Your task to perform on an android device: remove spam from my inbox in the gmail app Image 0: 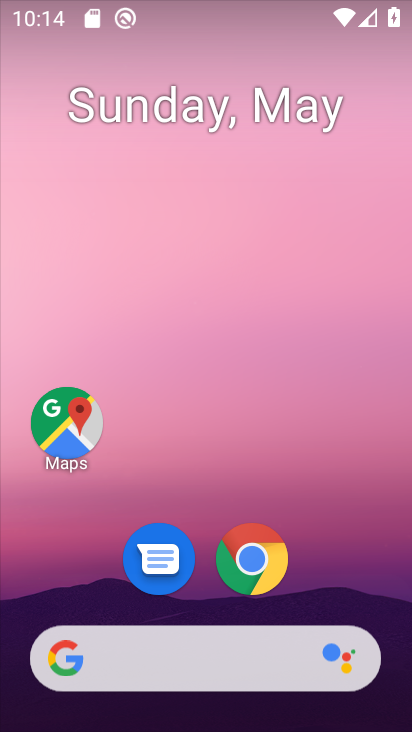
Step 0: drag from (211, 600) to (216, 160)
Your task to perform on an android device: remove spam from my inbox in the gmail app Image 1: 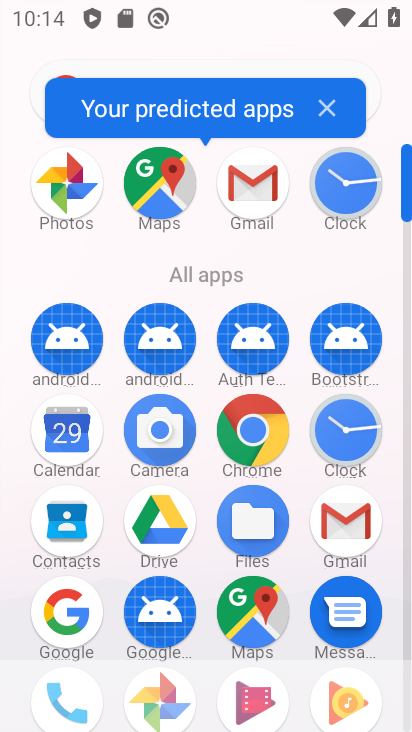
Step 1: click (232, 175)
Your task to perform on an android device: remove spam from my inbox in the gmail app Image 2: 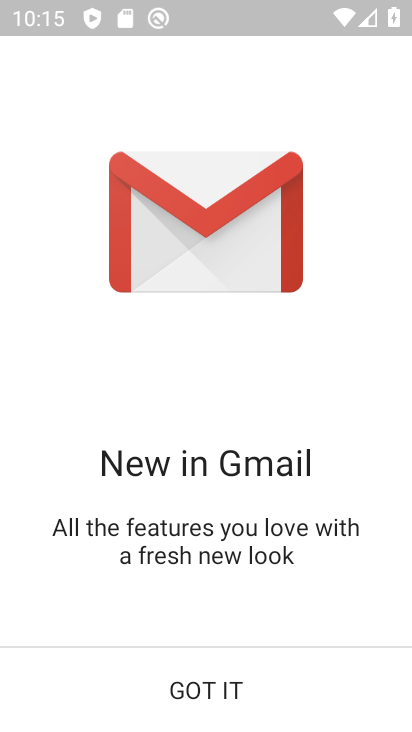
Step 2: click (246, 686)
Your task to perform on an android device: remove spam from my inbox in the gmail app Image 3: 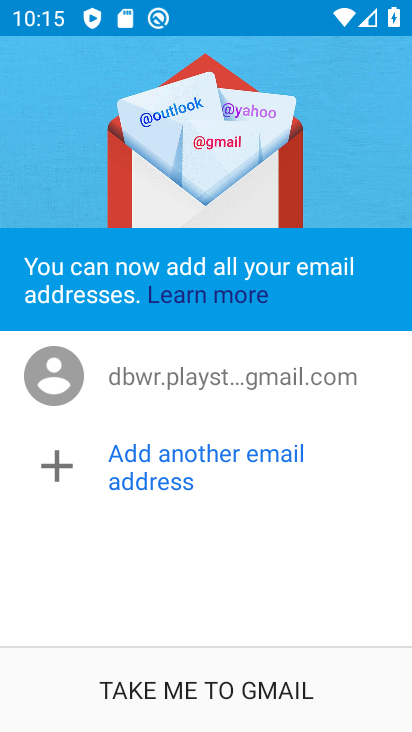
Step 3: click (246, 686)
Your task to perform on an android device: remove spam from my inbox in the gmail app Image 4: 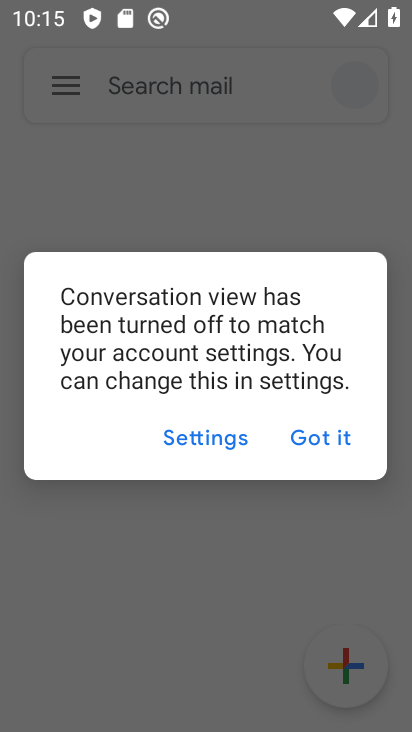
Step 4: click (329, 451)
Your task to perform on an android device: remove spam from my inbox in the gmail app Image 5: 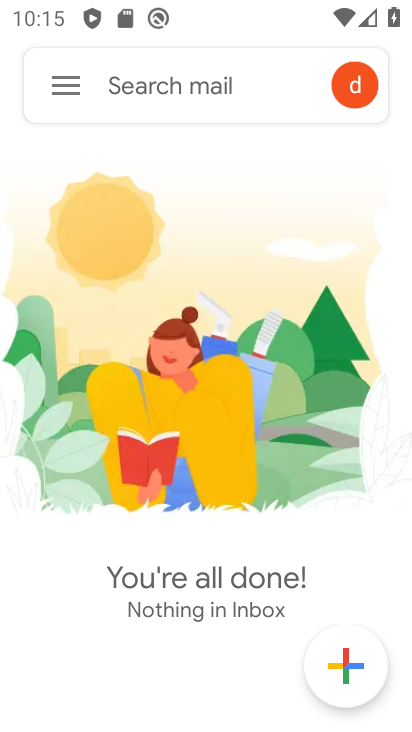
Step 5: click (75, 83)
Your task to perform on an android device: remove spam from my inbox in the gmail app Image 6: 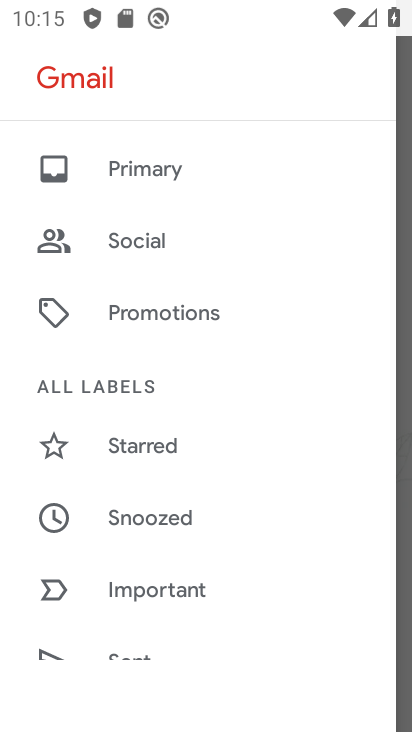
Step 6: drag from (175, 612) to (185, 159)
Your task to perform on an android device: remove spam from my inbox in the gmail app Image 7: 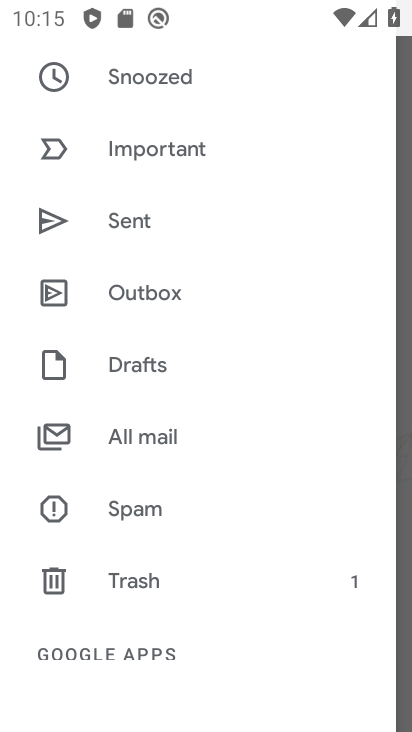
Step 7: click (192, 222)
Your task to perform on an android device: remove spam from my inbox in the gmail app Image 8: 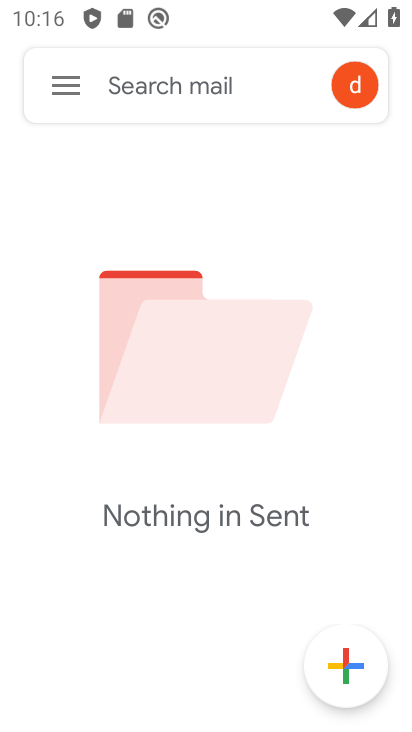
Step 8: click (64, 91)
Your task to perform on an android device: remove spam from my inbox in the gmail app Image 9: 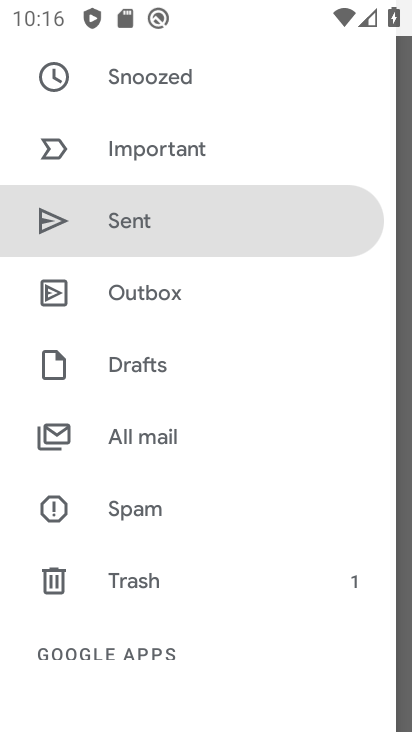
Step 9: click (166, 499)
Your task to perform on an android device: remove spam from my inbox in the gmail app Image 10: 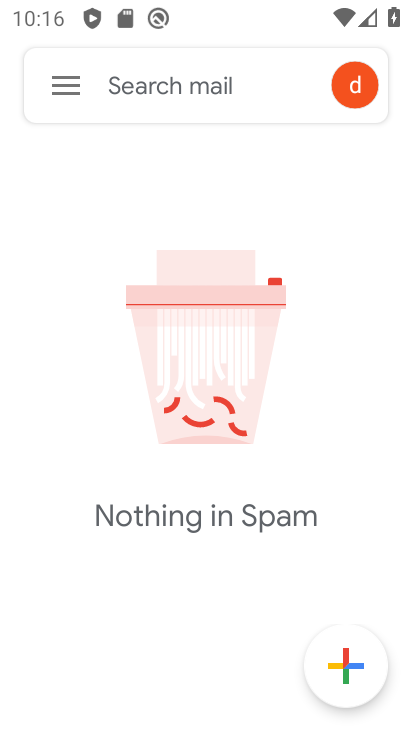
Step 10: task complete